Your task to perform on an android device: Go to Maps Image 0: 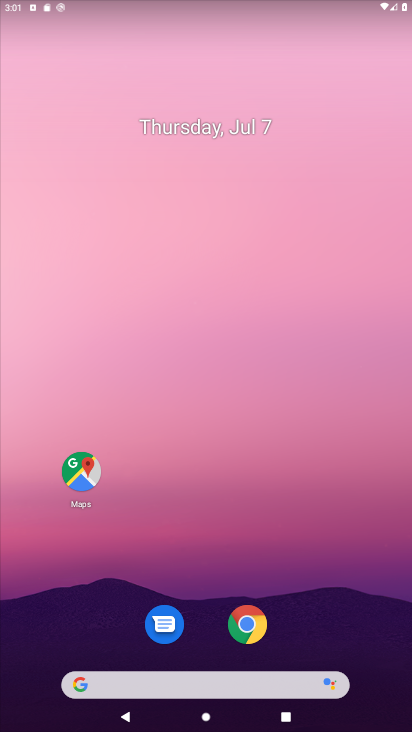
Step 0: click (166, 430)
Your task to perform on an android device: Go to Maps Image 1: 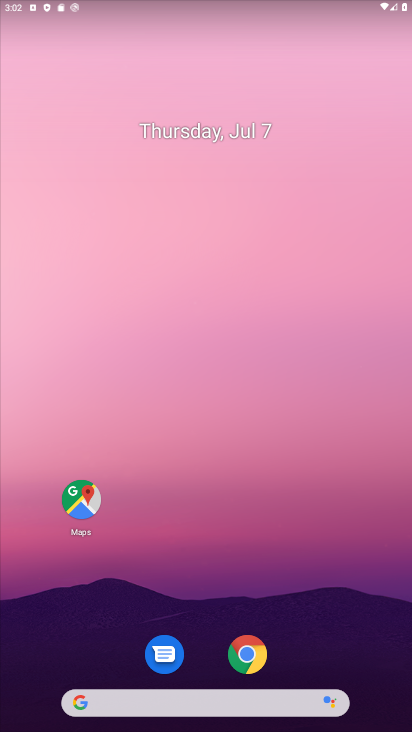
Step 1: click (76, 509)
Your task to perform on an android device: Go to Maps Image 2: 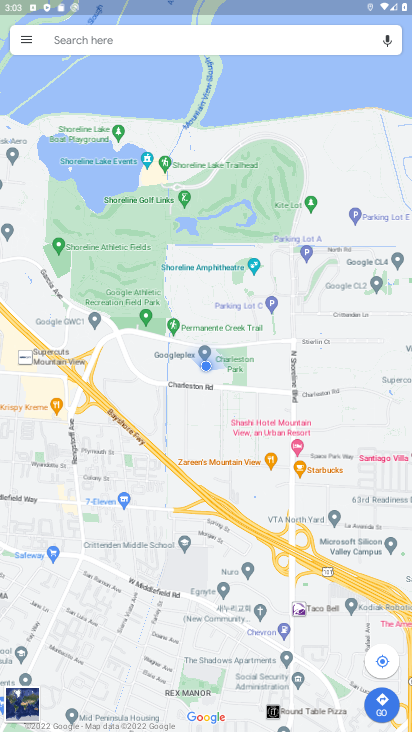
Step 2: task complete